Your task to perform on an android device: move a message to another label in the gmail app Image 0: 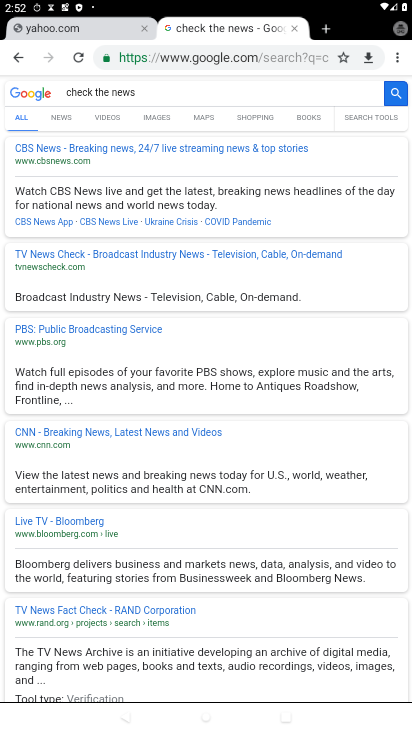
Step 0: press home button
Your task to perform on an android device: move a message to another label in the gmail app Image 1: 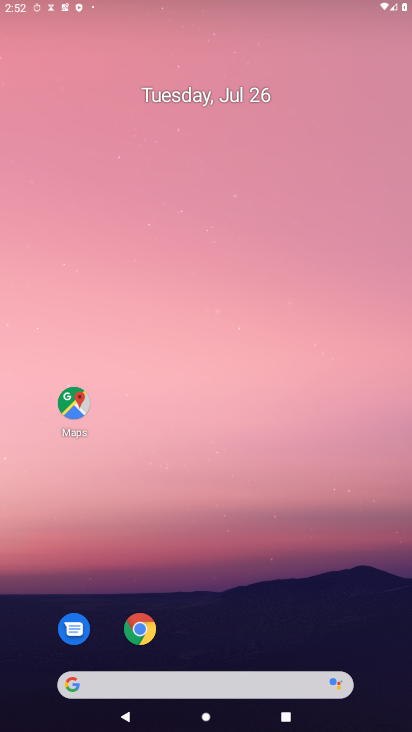
Step 1: drag from (288, 665) to (327, 2)
Your task to perform on an android device: move a message to another label in the gmail app Image 2: 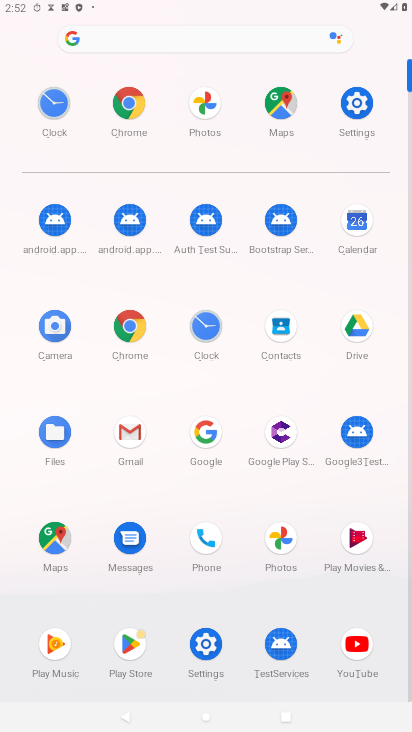
Step 2: click (128, 443)
Your task to perform on an android device: move a message to another label in the gmail app Image 3: 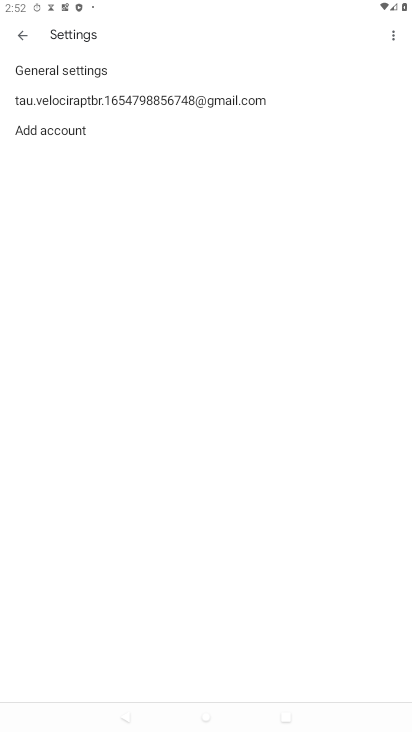
Step 3: press back button
Your task to perform on an android device: move a message to another label in the gmail app Image 4: 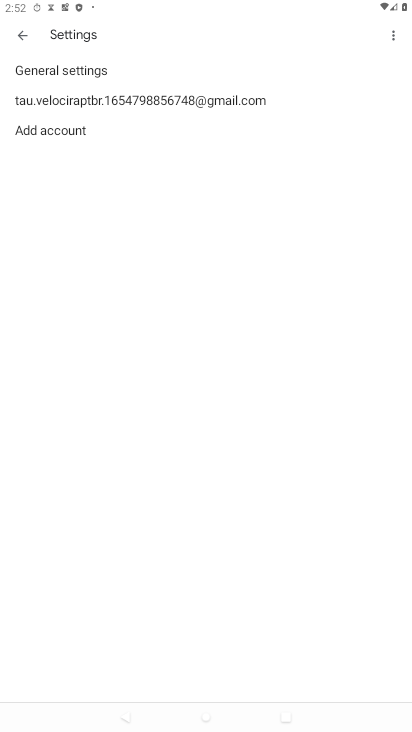
Step 4: press back button
Your task to perform on an android device: move a message to another label in the gmail app Image 5: 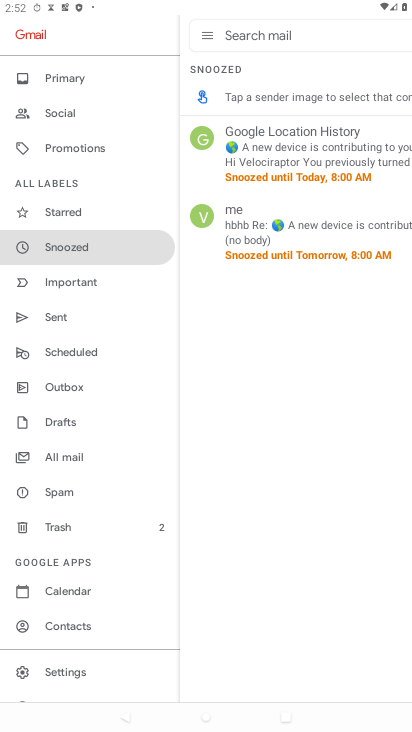
Step 5: drag from (236, 414) to (6, 423)
Your task to perform on an android device: move a message to another label in the gmail app Image 6: 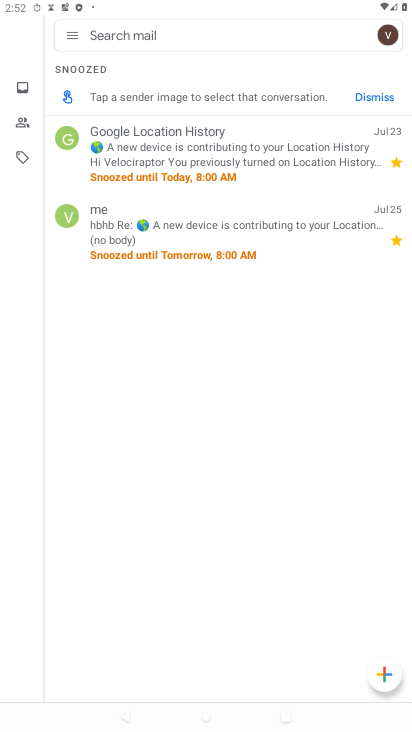
Step 6: drag from (12, 373) to (301, 377)
Your task to perform on an android device: move a message to another label in the gmail app Image 7: 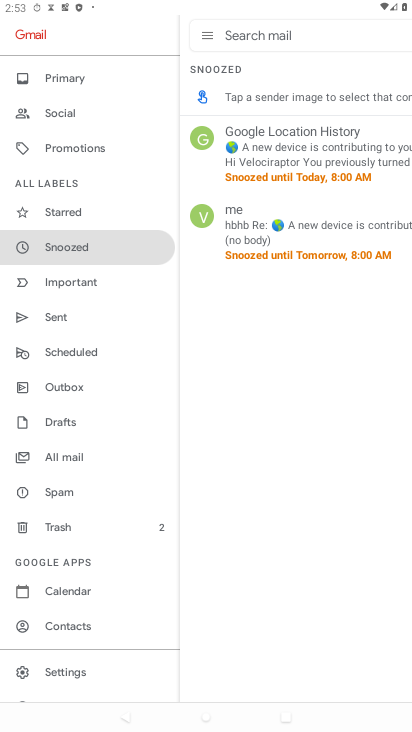
Step 7: click (287, 135)
Your task to perform on an android device: move a message to another label in the gmail app Image 8: 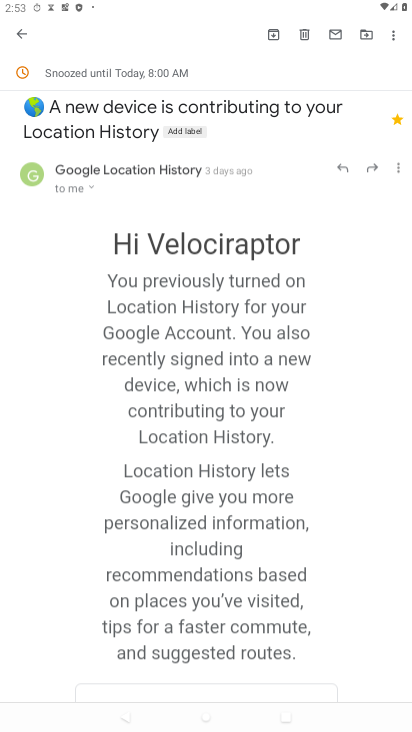
Step 8: click (389, 33)
Your task to perform on an android device: move a message to another label in the gmail app Image 9: 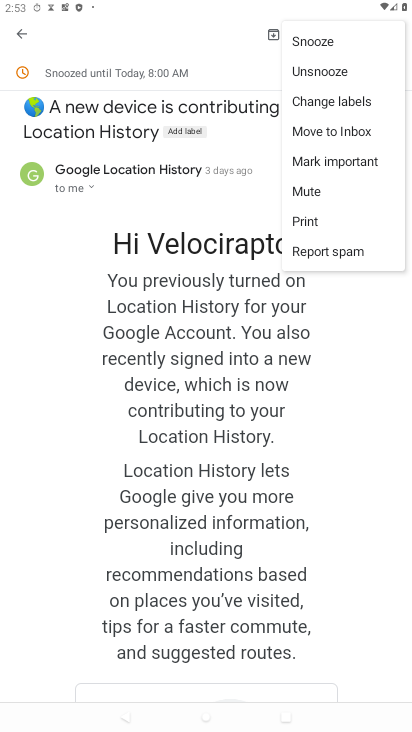
Step 9: click (307, 101)
Your task to perform on an android device: move a message to another label in the gmail app Image 10: 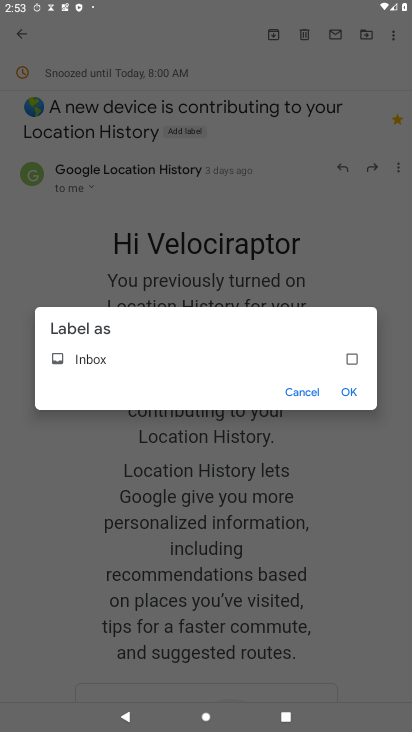
Step 10: click (351, 359)
Your task to perform on an android device: move a message to another label in the gmail app Image 11: 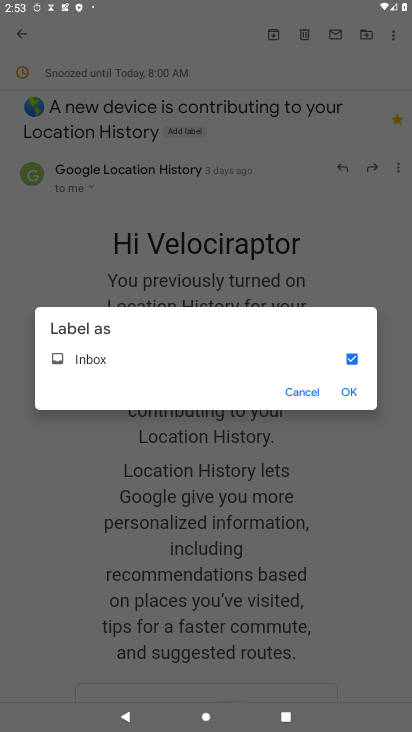
Step 11: click (345, 390)
Your task to perform on an android device: move a message to another label in the gmail app Image 12: 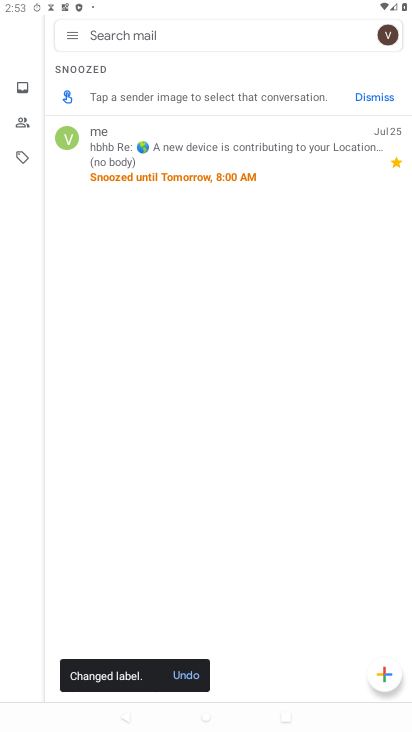
Step 12: task complete